Your task to perform on an android device: turn off data saver in the chrome app Image 0: 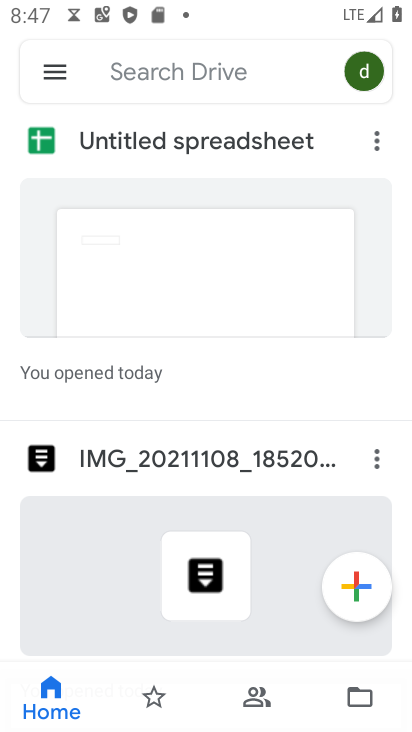
Step 0: press back button
Your task to perform on an android device: turn off data saver in the chrome app Image 1: 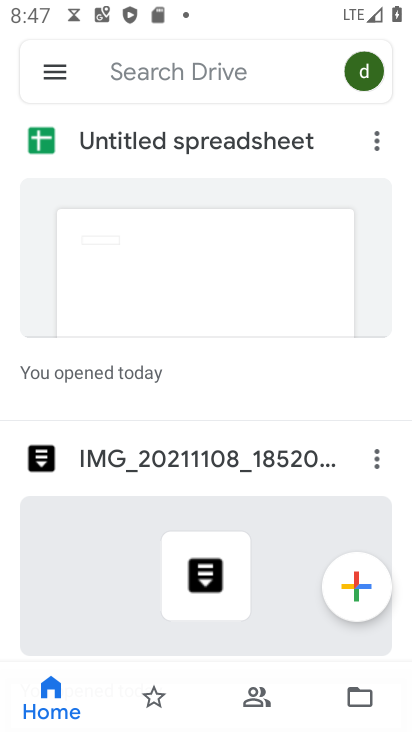
Step 1: press back button
Your task to perform on an android device: turn off data saver in the chrome app Image 2: 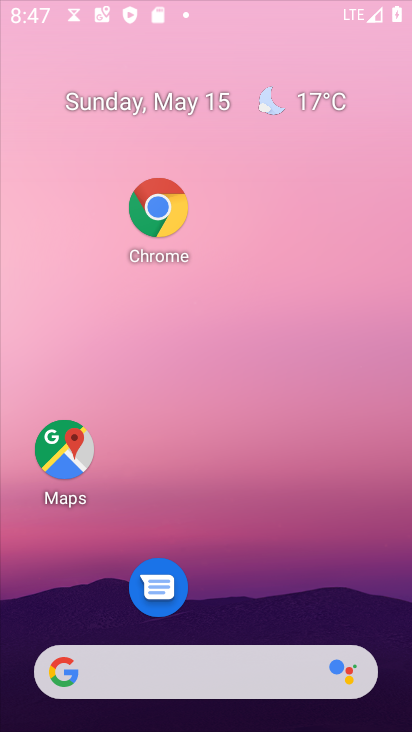
Step 2: press back button
Your task to perform on an android device: turn off data saver in the chrome app Image 3: 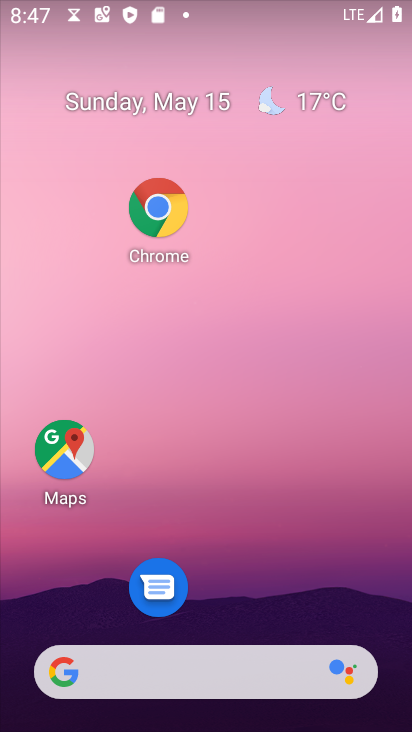
Step 3: drag from (219, 396) to (56, 118)
Your task to perform on an android device: turn off data saver in the chrome app Image 4: 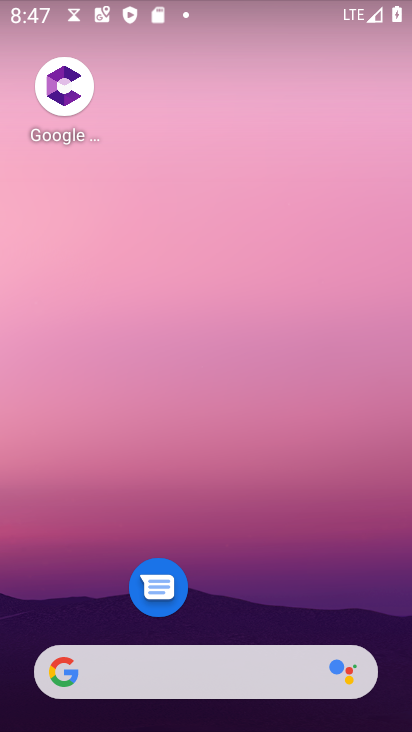
Step 4: drag from (252, 643) to (100, 13)
Your task to perform on an android device: turn off data saver in the chrome app Image 5: 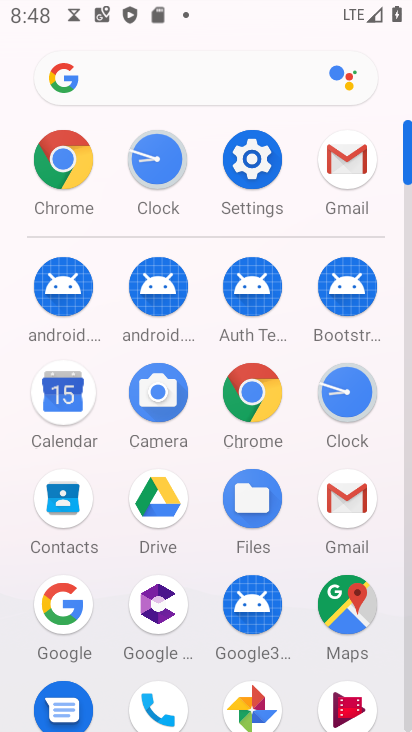
Step 5: click (252, 171)
Your task to perform on an android device: turn off data saver in the chrome app Image 6: 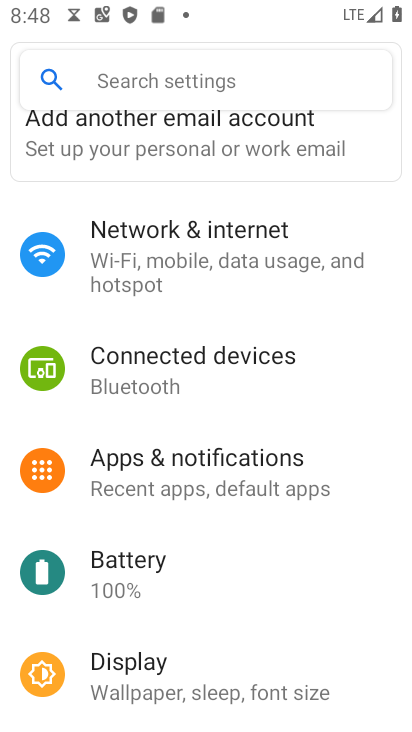
Step 6: click (169, 250)
Your task to perform on an android device: turn off data saver in the chrome app Image 7: 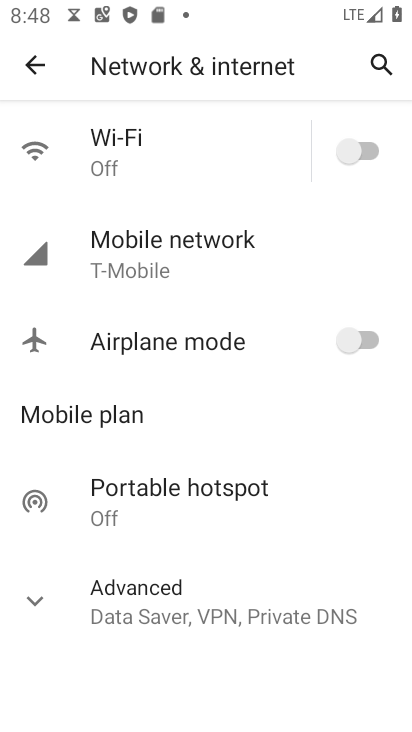
Step 7: click (29, 64)
Your task to perform on an android device: turn off data saver in the chrome app Image 8: 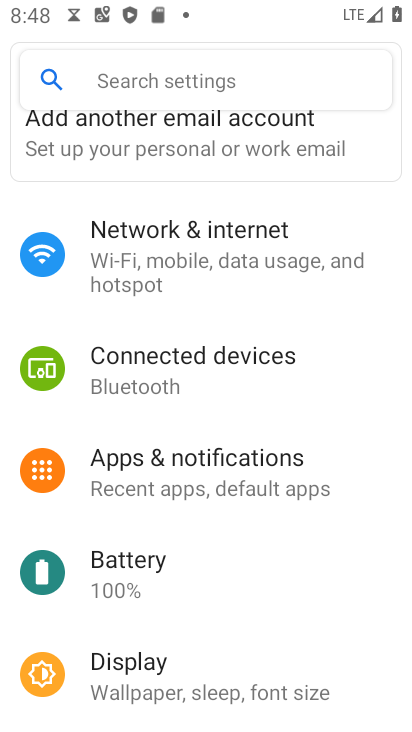
Step 8: press home button
Your task to perform on an android device: turn off data saver in the chrome app Image 9: 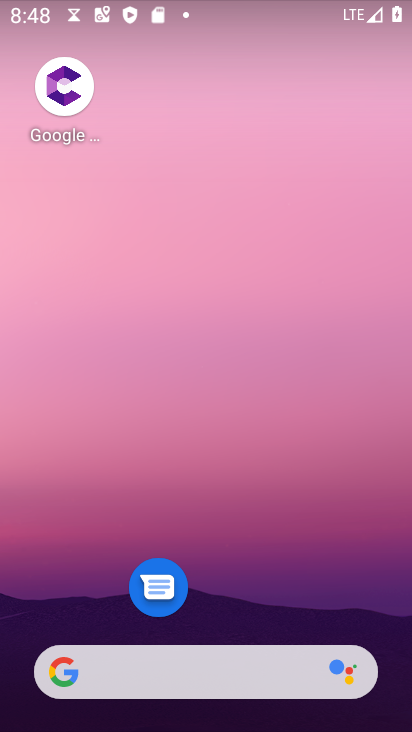
Step 9: drag from (244, 494) to (12, 64)
Your task to perform on an android device: turn off data saver in the chrome app Image 10: 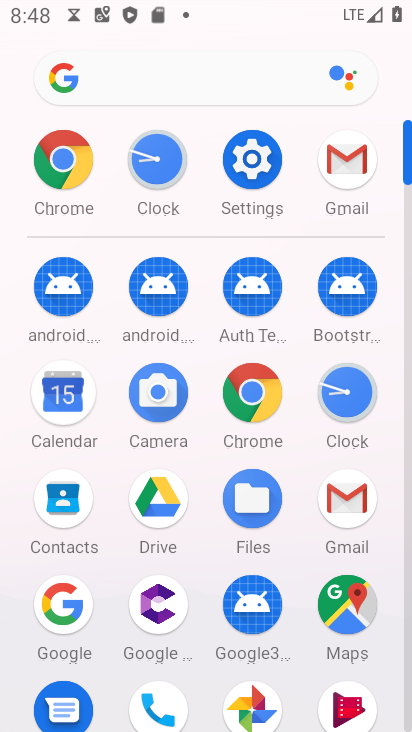
Step 10: click (237, 397)
Your task to perform on an android device: turn off data saver in the chrome app Image 11: 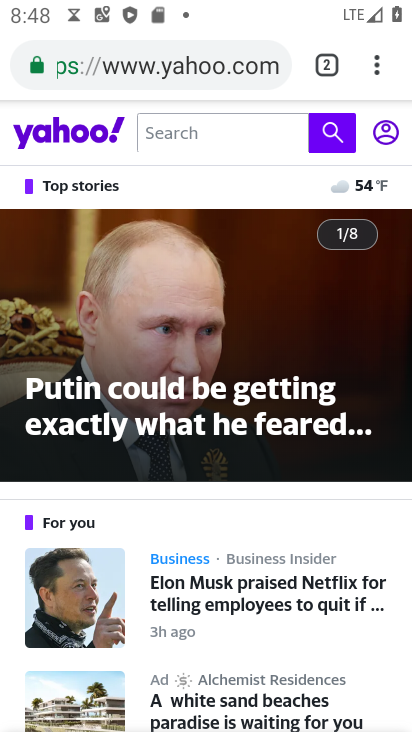
Step 11: click (377, 63)
Your task to perform on an android device: turn off data saver in the chrome app Image 12: 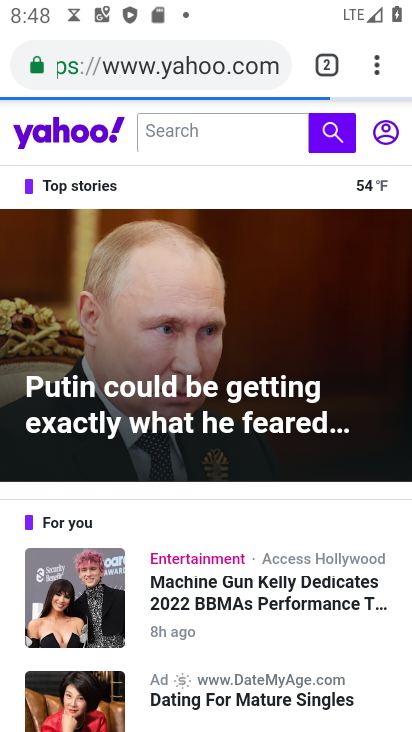
Step 12: click (371, 64)
Your task to perform on an android device: turn off data saver in the chrome app Image 13: 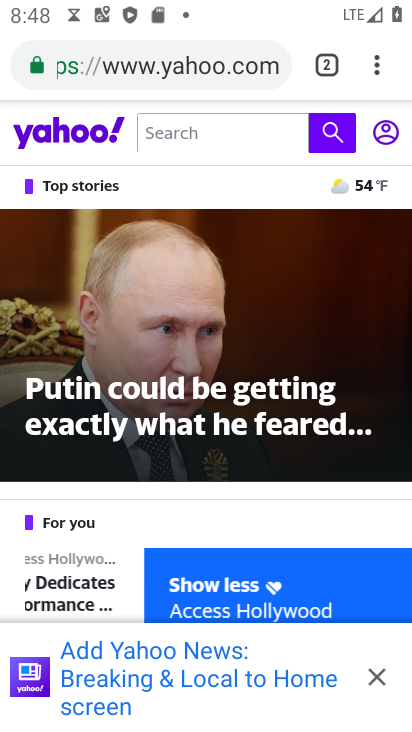
Step 13: click (368, 68)
Your task to perform on an android device: turn off data saver in the chrome app Image 14: 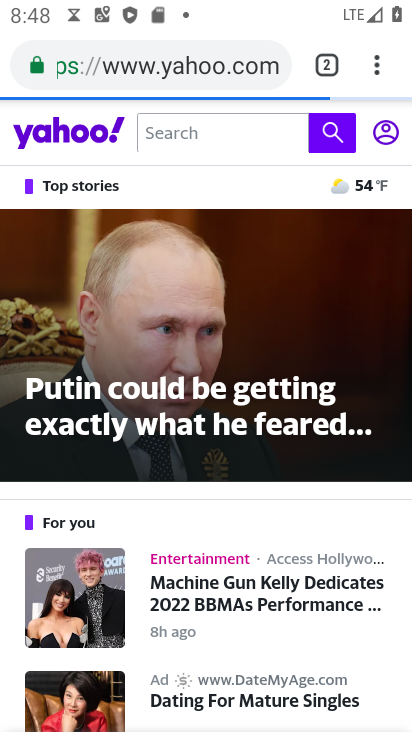
Step 14: drag from (375, 63) to (141, 637)
Your task to perform on an android device: turn off data saver in the chrome app Image 15: 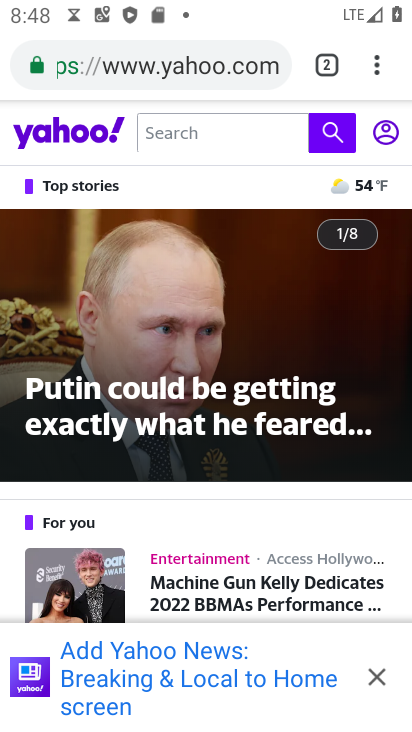
Step 15: click (141, 637)
Your task to perform on an android device: turn off data saver in the chrome app Image 16: 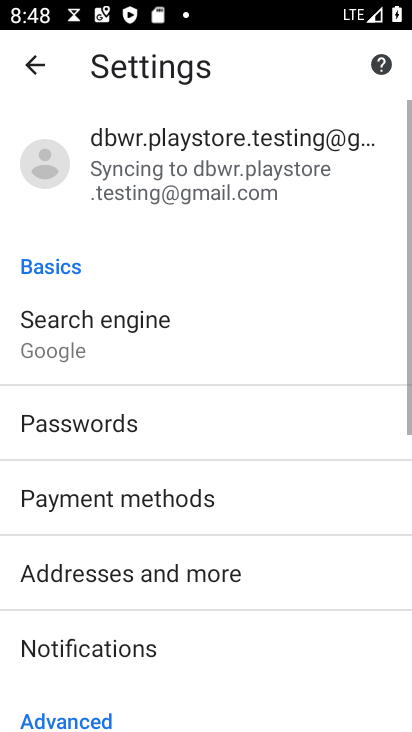
Step 16: drag from (192, 535) to (80, 150)
Your task to perform on an android device: turn off data saver in the chrome app Image 17: 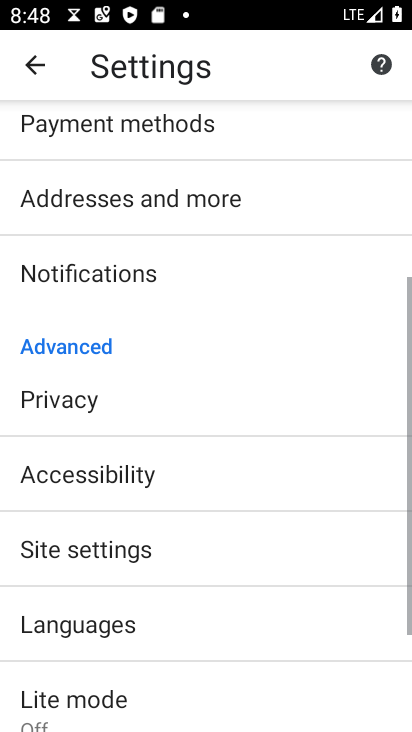
Step 17: drag from (134, 446) to (136, 171)
Your task to perform on an android device: turn off data saver in the chrome app Image 18: 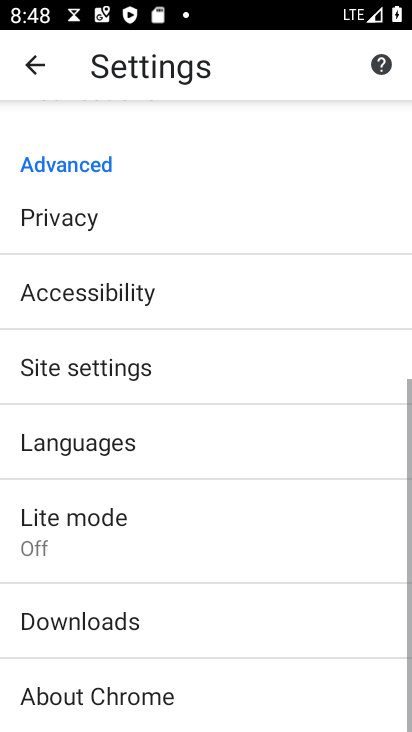
Step 18: drag from (224, 445) to (181, 48)
Your task to perform on an android device: turn off data saver in the chrome app Image 19: 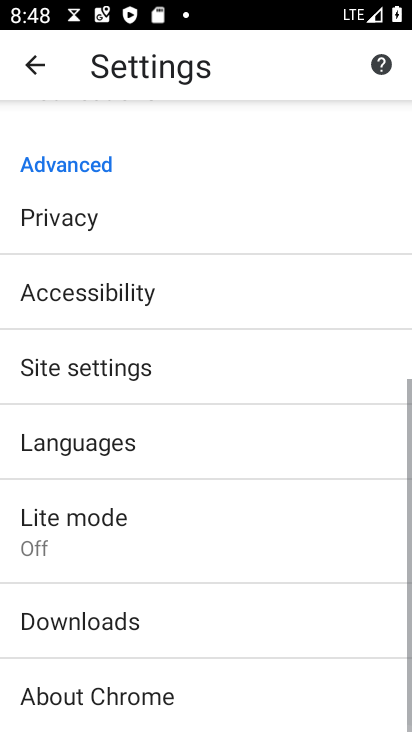
Step 19: drag from (93, 473) to (92, 37)
Your task to perform on an android device: turn off data saver in the chrome app Image 20: 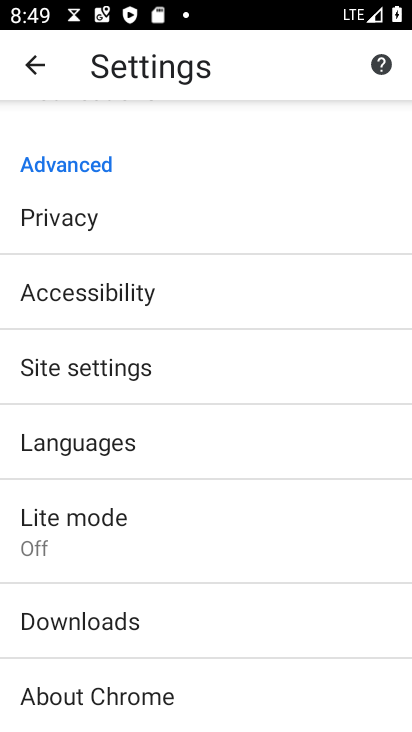
Step 20: click (68, 513)
Your task to perform on an android device: turn off data saver in the chrome app Image 21: 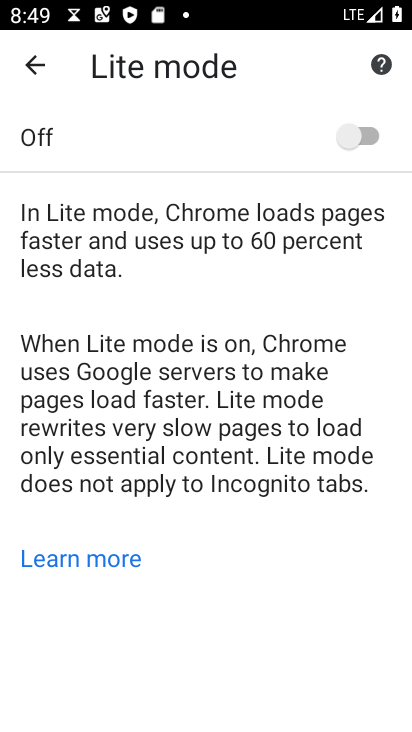
Step 21: task complete